Your task to perform on an android device: see creations saved in the google photos Image 0: 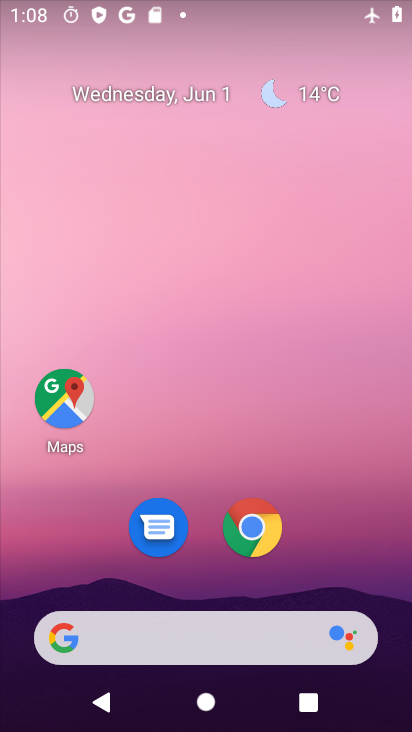
Step 0: drag from (263, 508) to (295, 11)
Your task to perform on an android device: see creations saved in the google photos Image 1: 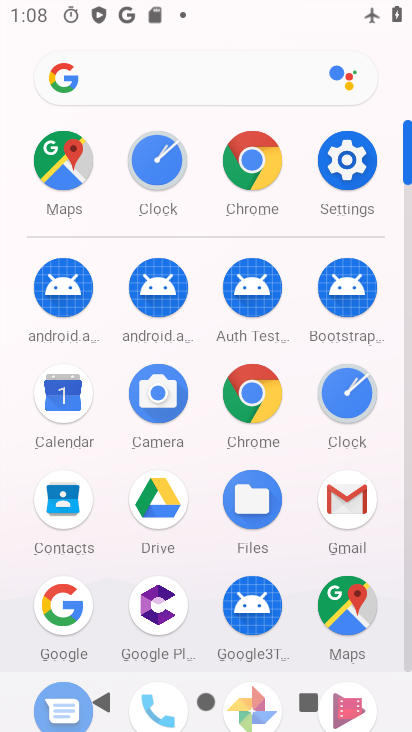
Step 1: drag from (262, 534) to (330, 221)
Your task to perform on an android device: see creations saved in the google photos Image 2: 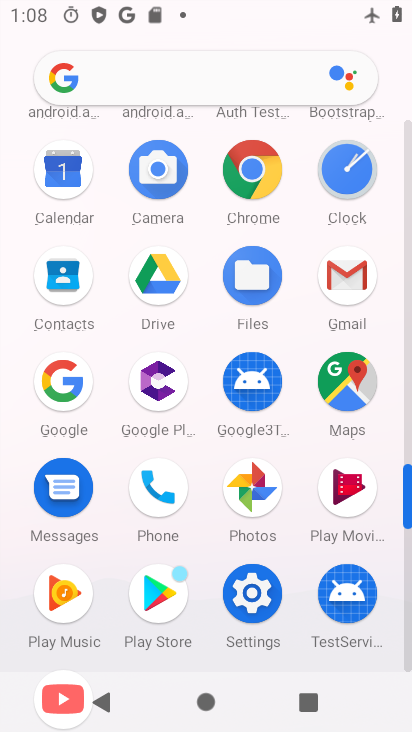
Step 2: click (247, 503)
Your task to perform on an android device: see creations saved in the google photos Image 3: 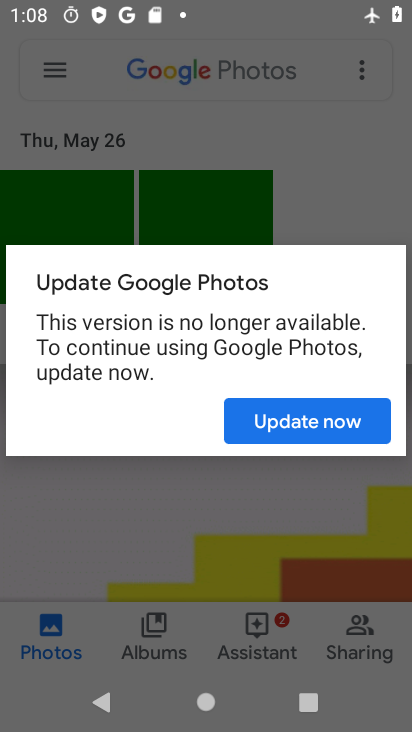
Step 3: click (298, 437)
Your task to perform on an android device: see creations saved in the google photos Image 4: 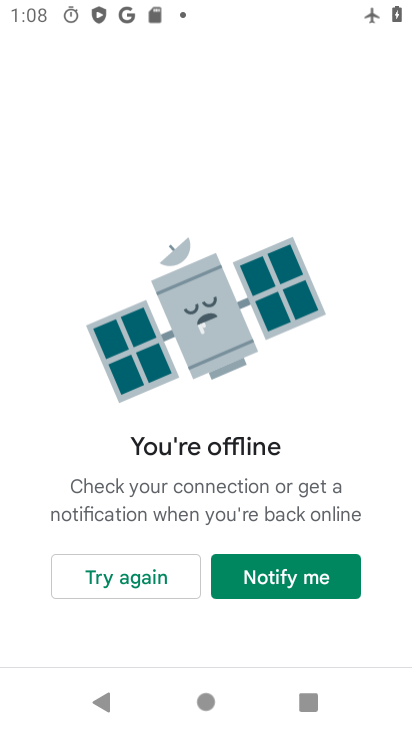
Step 4: task complete